Your task to perform on an android device: install app "HBO Max: Stream TV & Movies" Image 0: 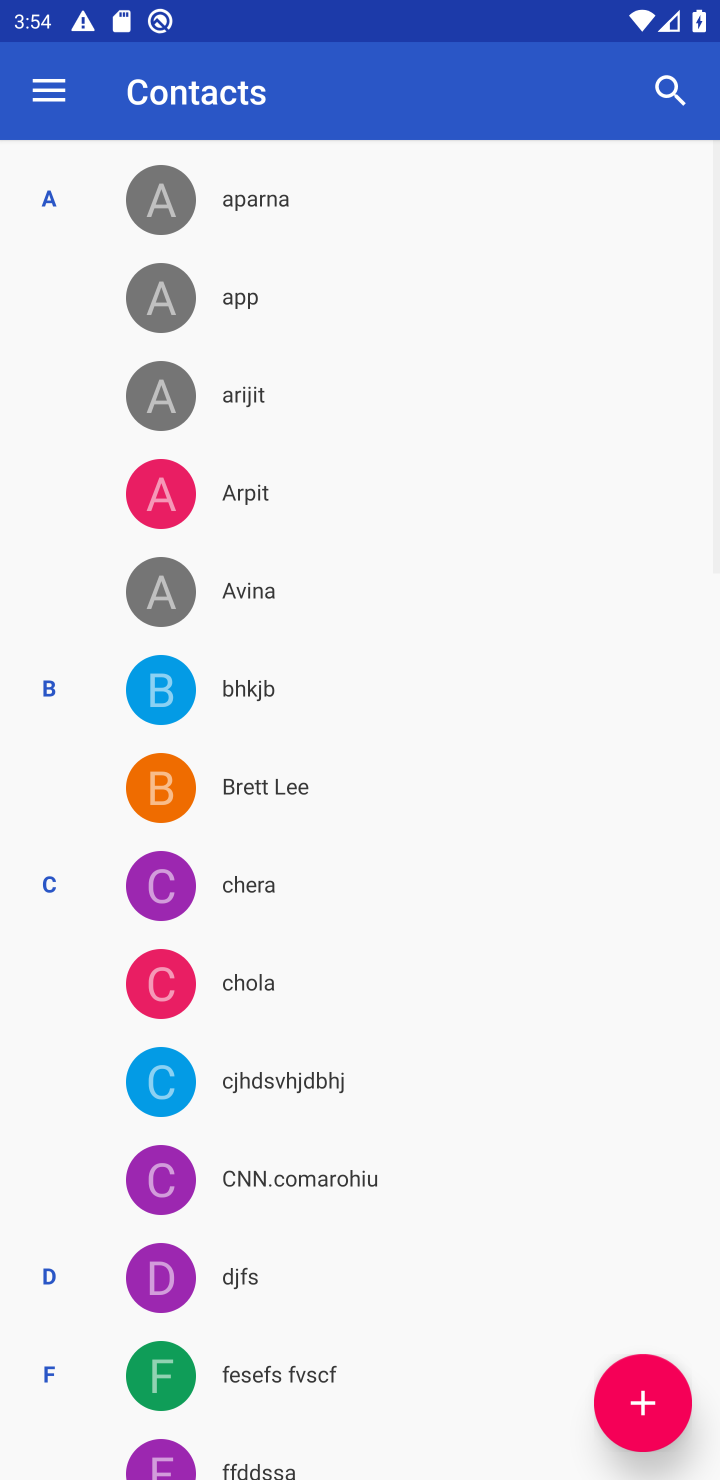
Step 0: press home button
Your task to perform on an android device: install app "HBO Max: Stream TV & Movies" Image 1: 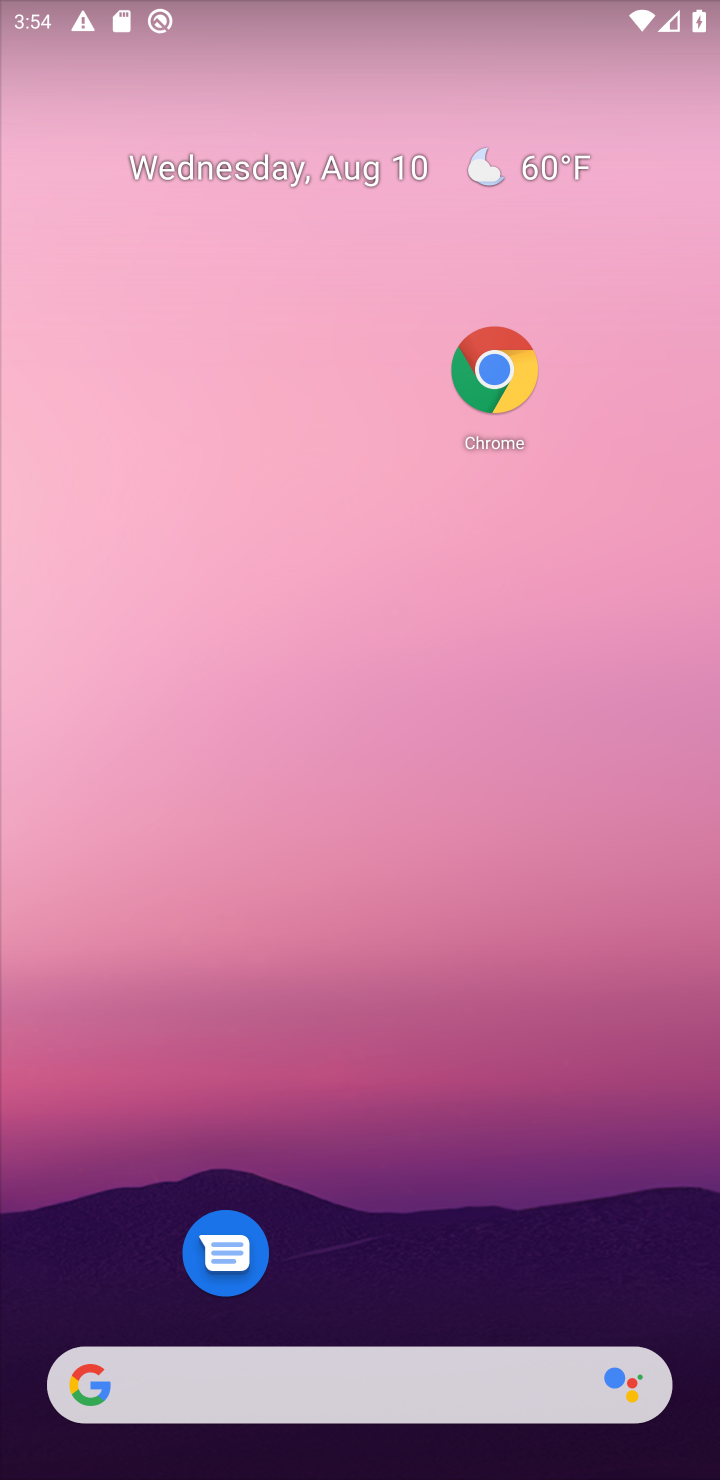
Step 1: press home button
Your task to perform on an android device: install app "HBO Max: Stream TV & Movies" Image 2: 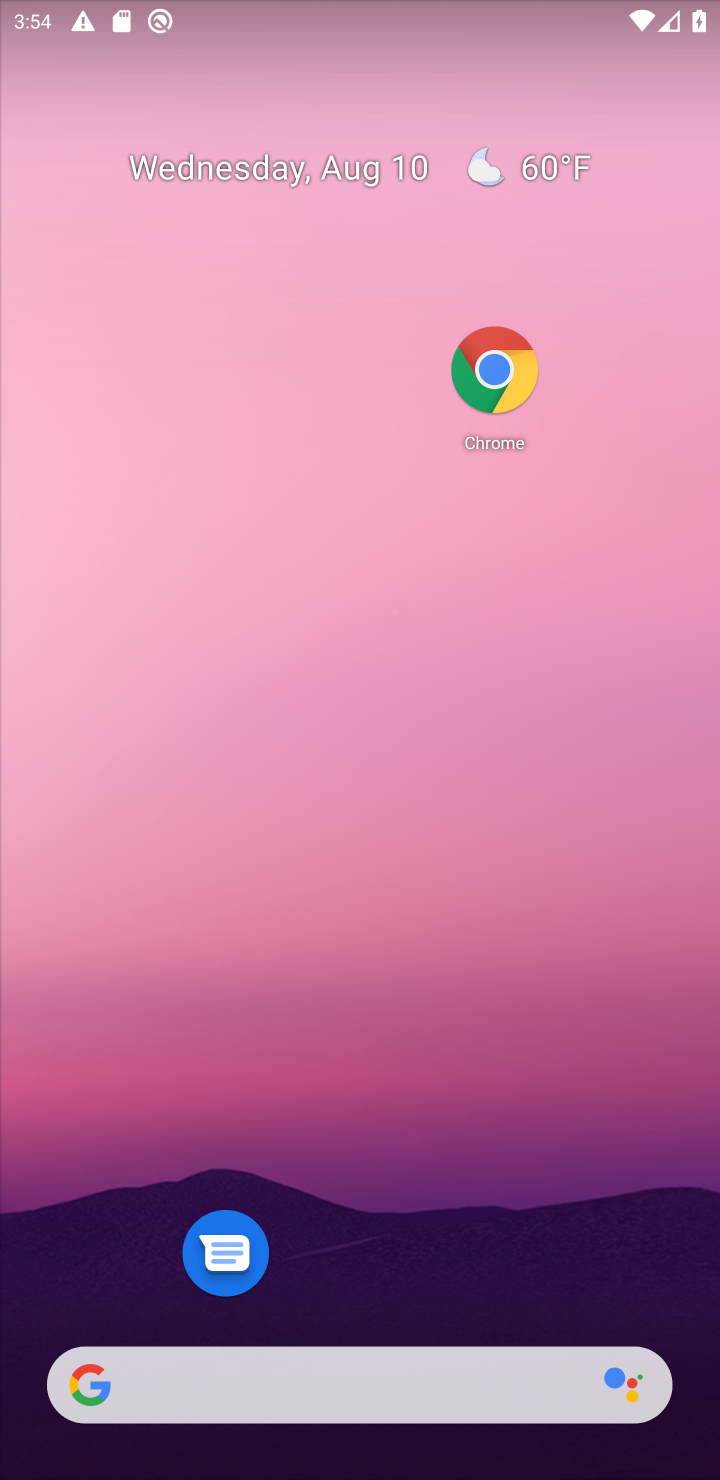
Step 2: drag from (361, 1256) to (352, 79)
Your task to perform on an android device: install app "HBO Max: Stream TV & Movies" Image 3: 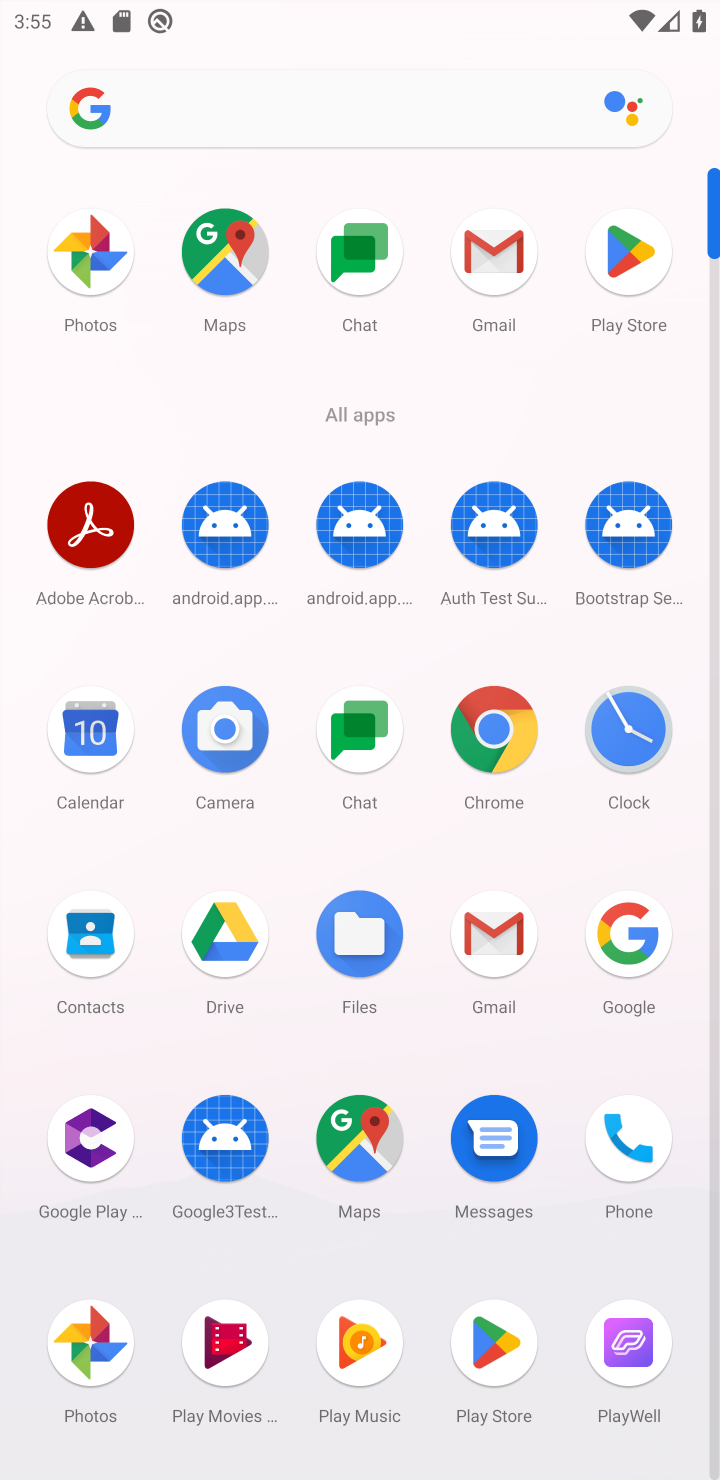
Step 3: click (629, 265)
Your task to perform on an android device: install app "HBO Max: Stream TV & Movies" Image 4: 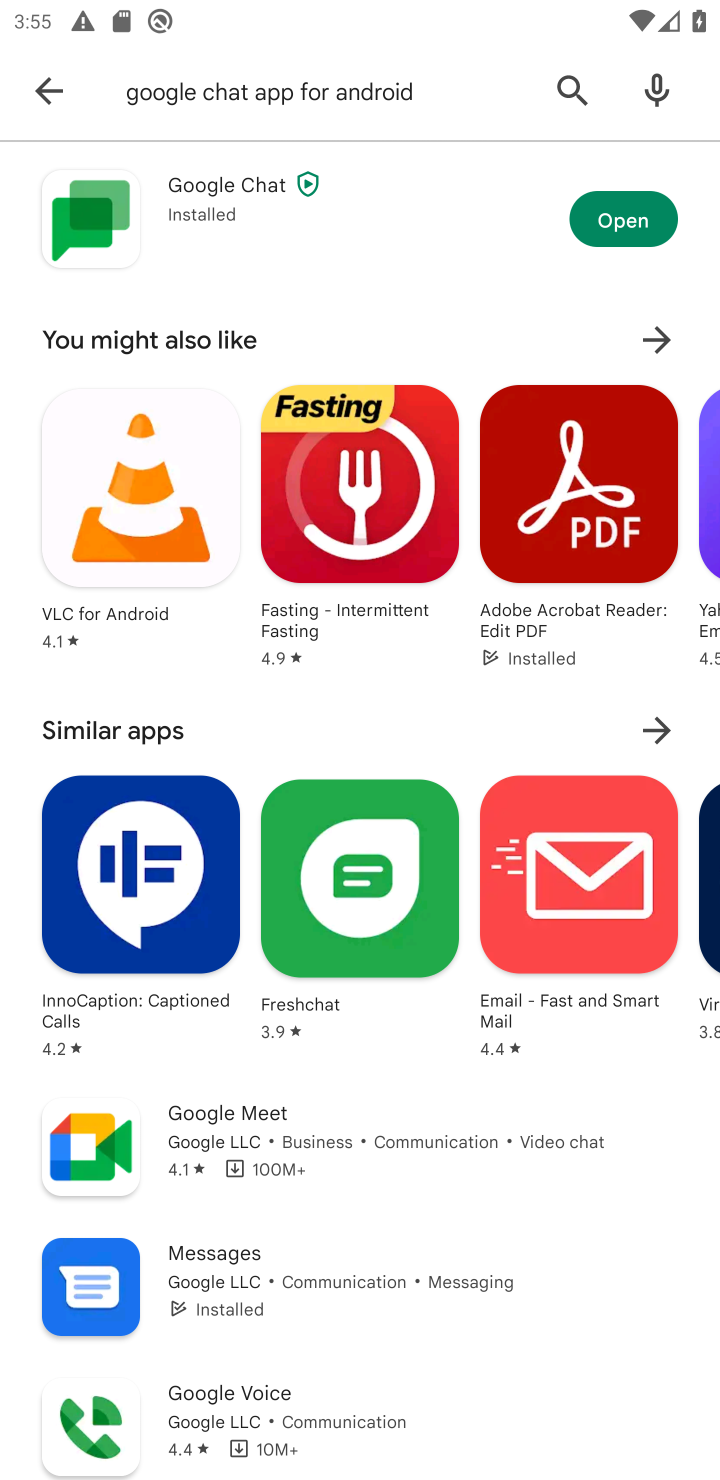
Step 4: click (66, 78)
Your task to perform on an android device: install app "HBO Max: Stream TV & Movies" Image 5: 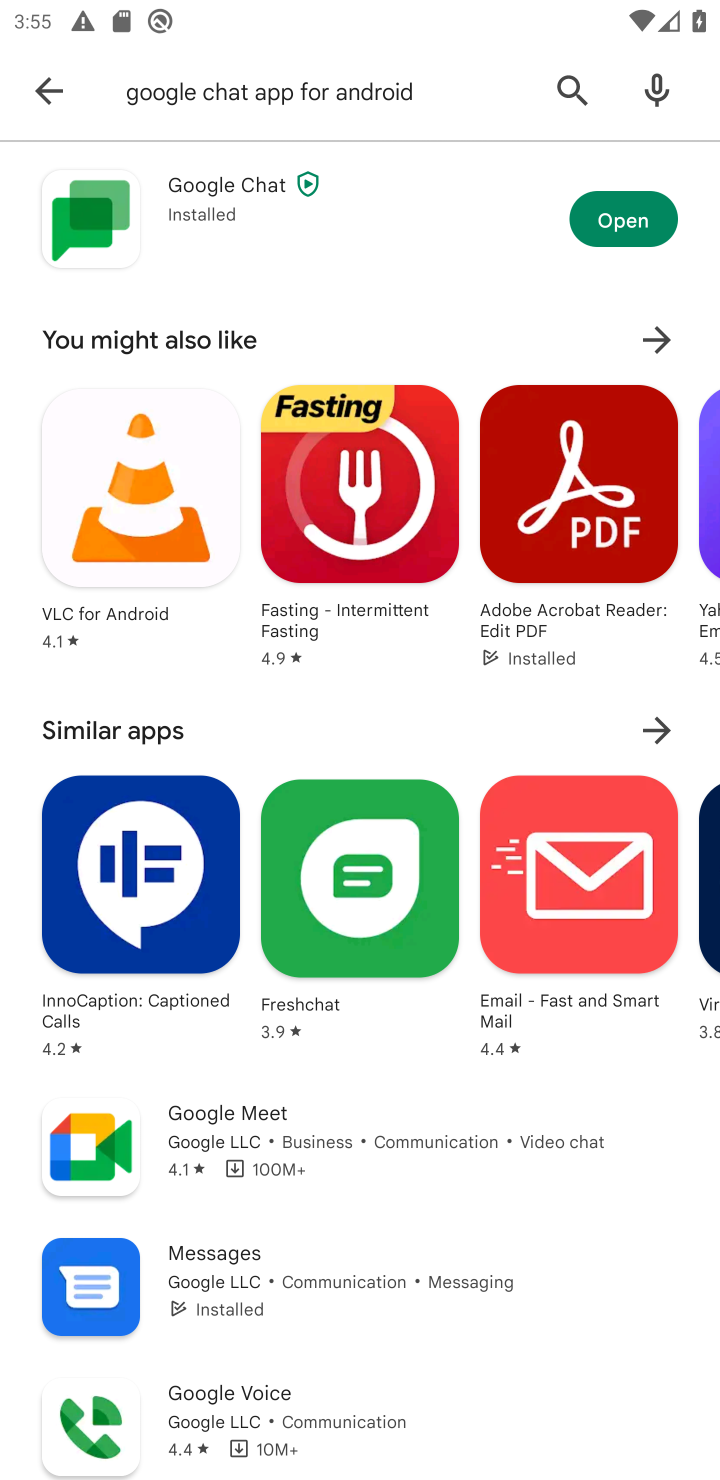
Step 5: click (52, 109)
Your task to perform on an android device: install app "HBO Max: Stream TV & Movies" Image 6: 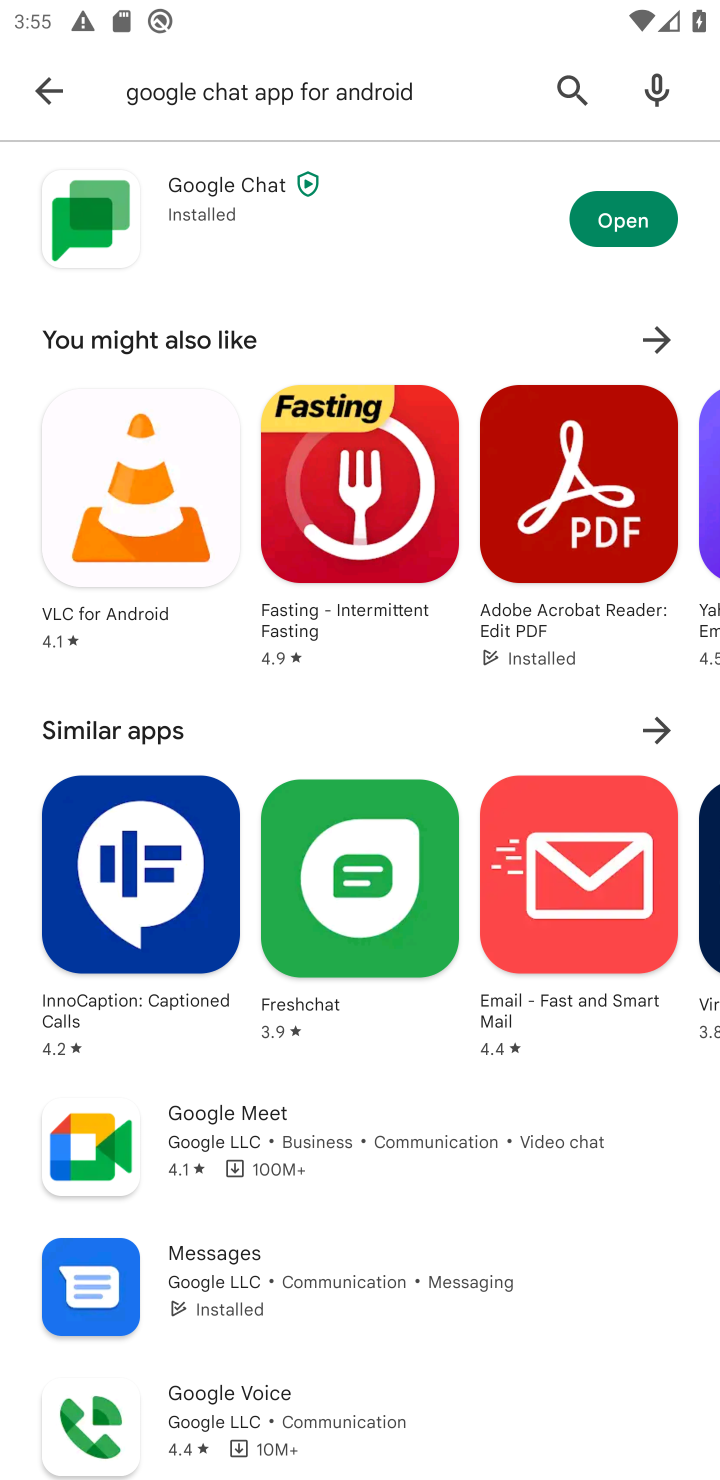
Step 6: click (82, 81)
Your task to perform on an android device: install app "HBO Max: Stream TV & Movies" Image 7: 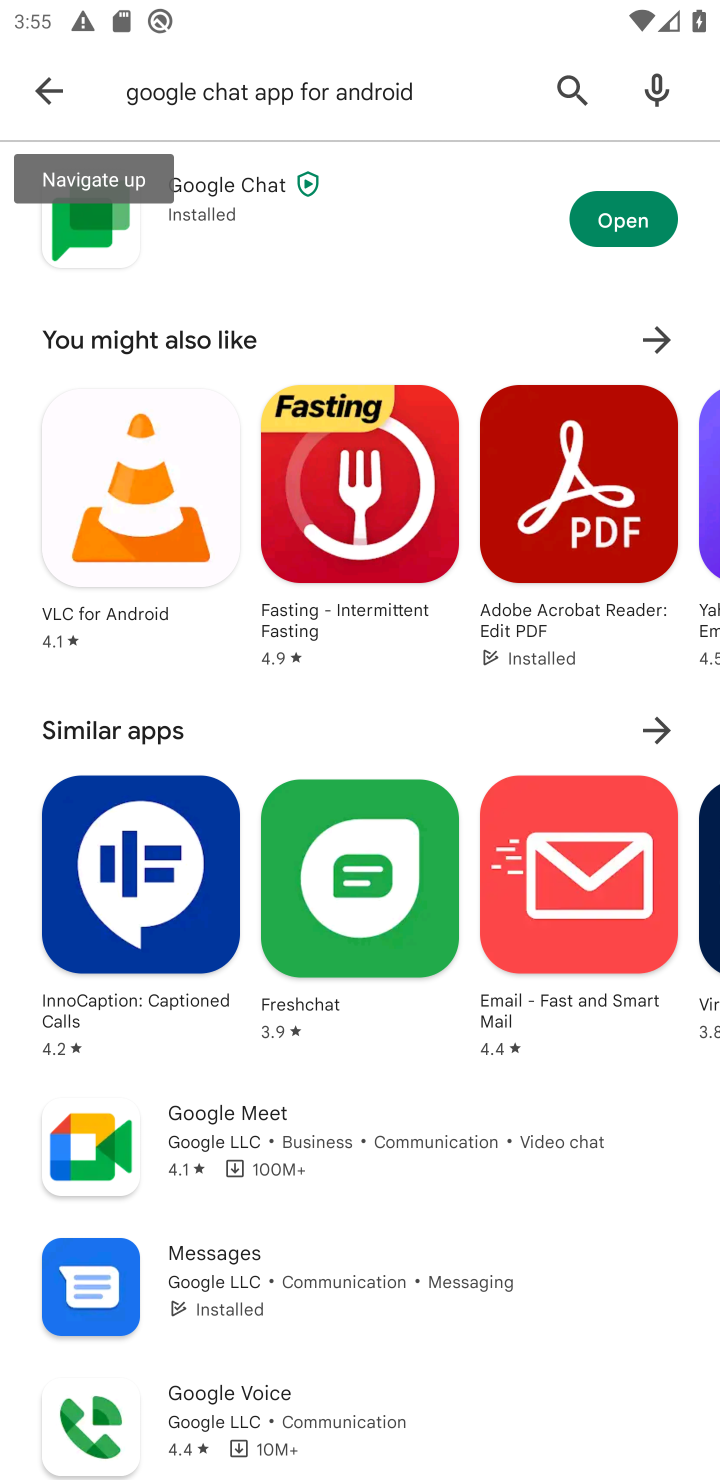
Step 7: click (418, 86)
Your task to perform on an android device: install app "HBO Max: Stream TV & Movies" Image 8: 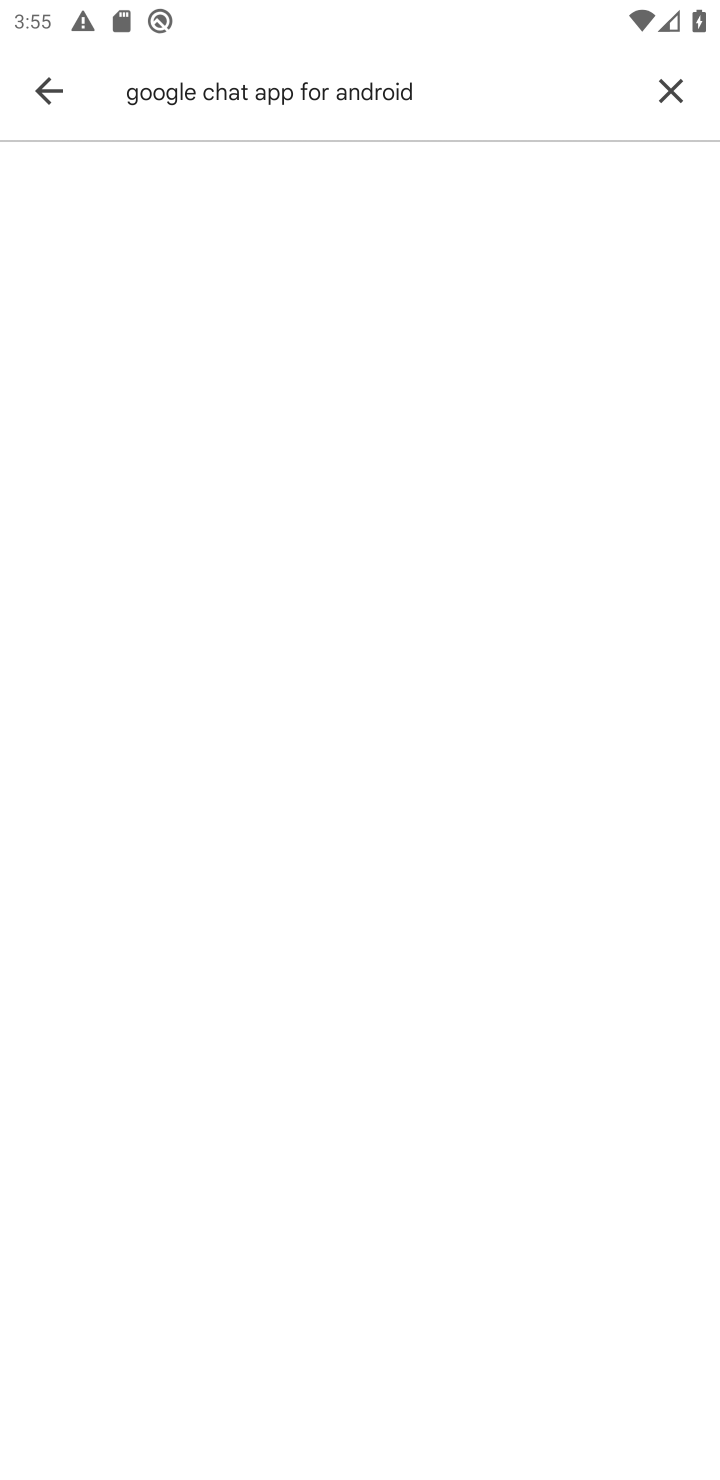
Step 8: click (418, 86)
Your task to perform on an android device: install app "HBO Max: Stream TV & Movies" Image 9: 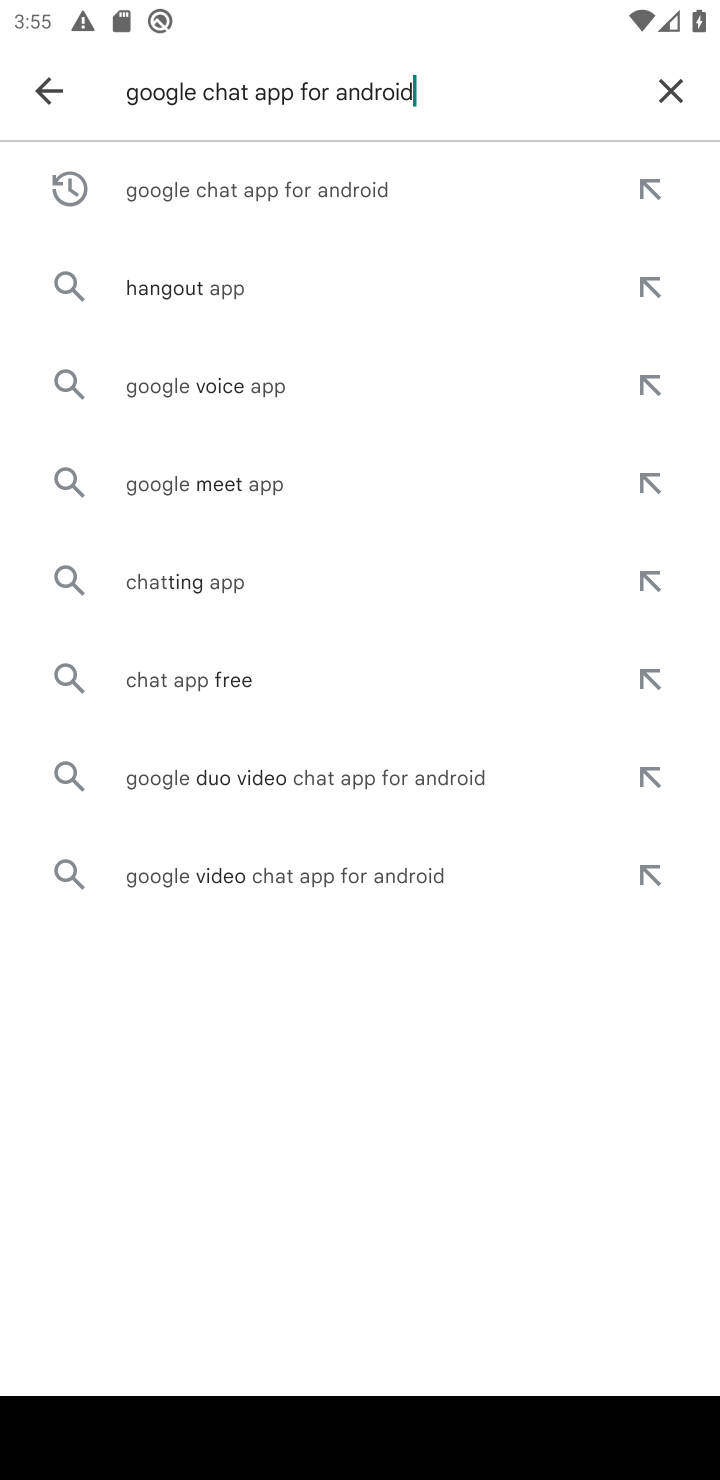
Step 9: click (672, 98)
Your task to perform on an android device: install app "HBO Max: Stream TV & Movies" Image 10: 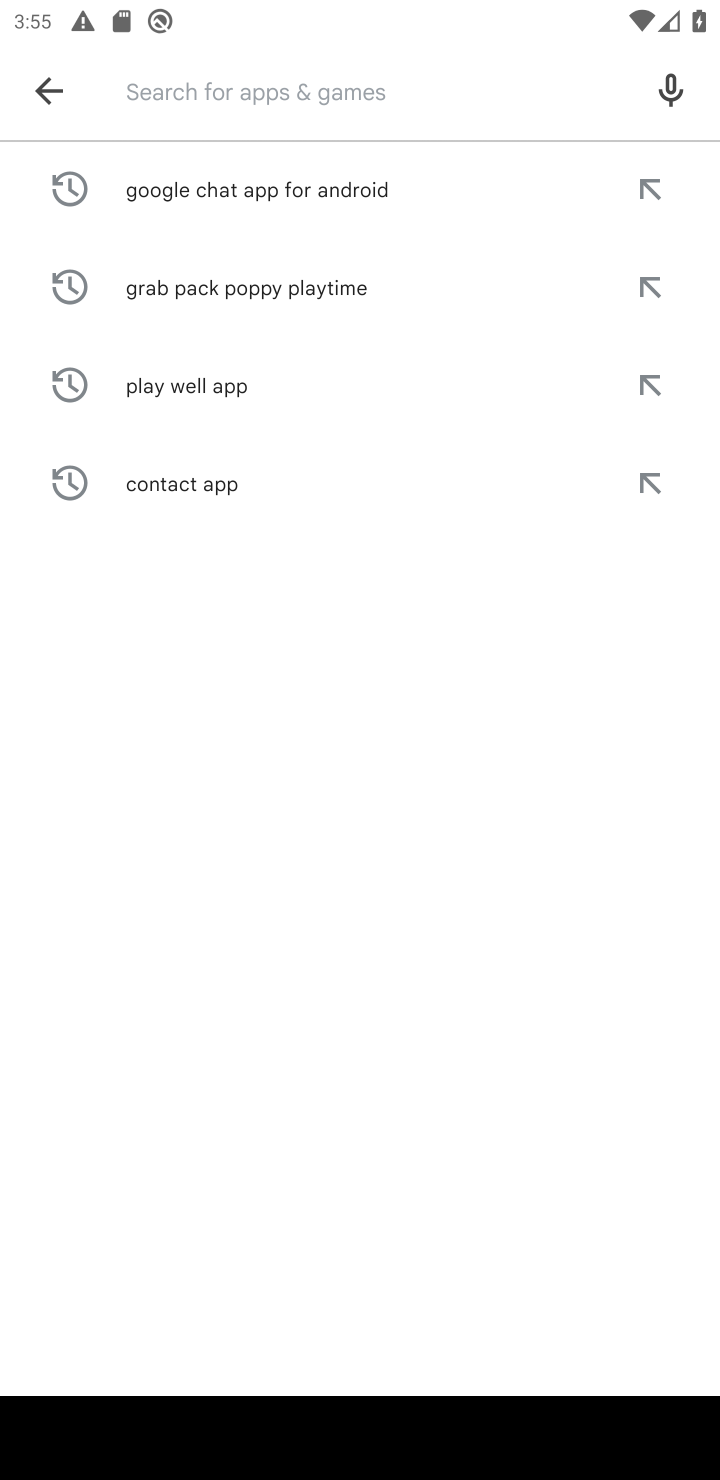
Step 10: click (259, 92)
Your task to perform on an android device: install app "HBO Max: Stream TV & Movies" Image 11: 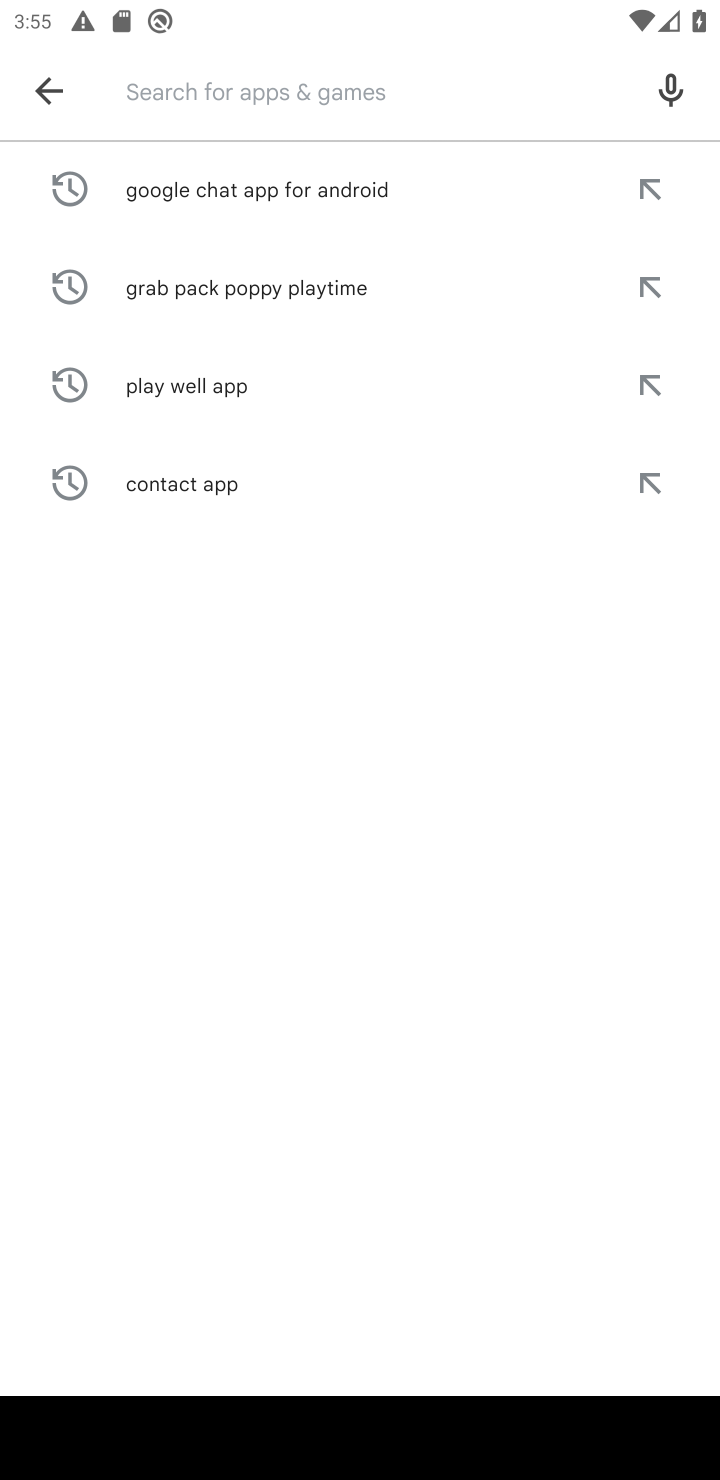
Step 11: type "HBO Max: Stream TV & Movies "
Your task to perform on an android device: install app "HBO Max: Stream TV & Movies" Image 12: 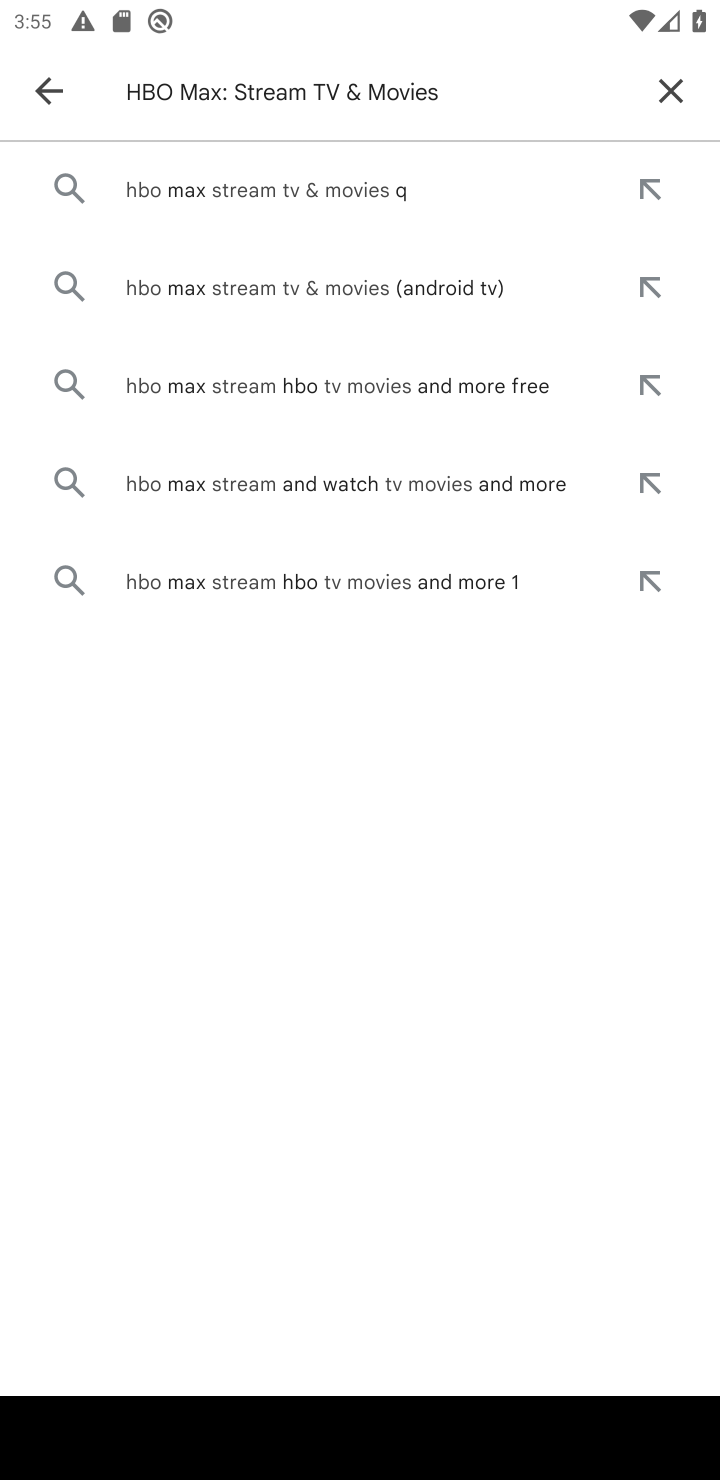
Step 12: click (267, 176)
Your task to perform on an android device: install app "HBO Max: Stream TV & Movies" Image 13: 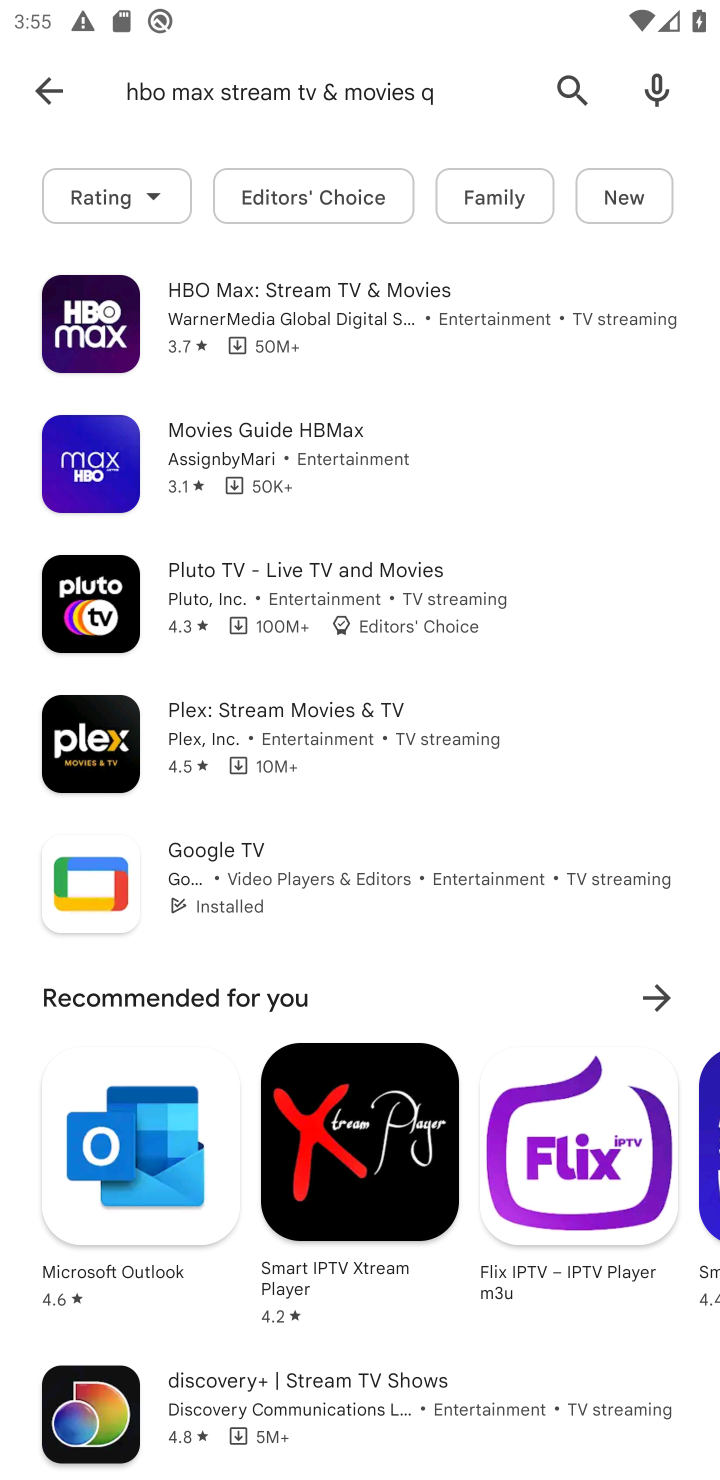
Step 13: click (186, 333)
Your task to perform on an android device: install app "HBO Max: Stream TV & Movies" Image 14: 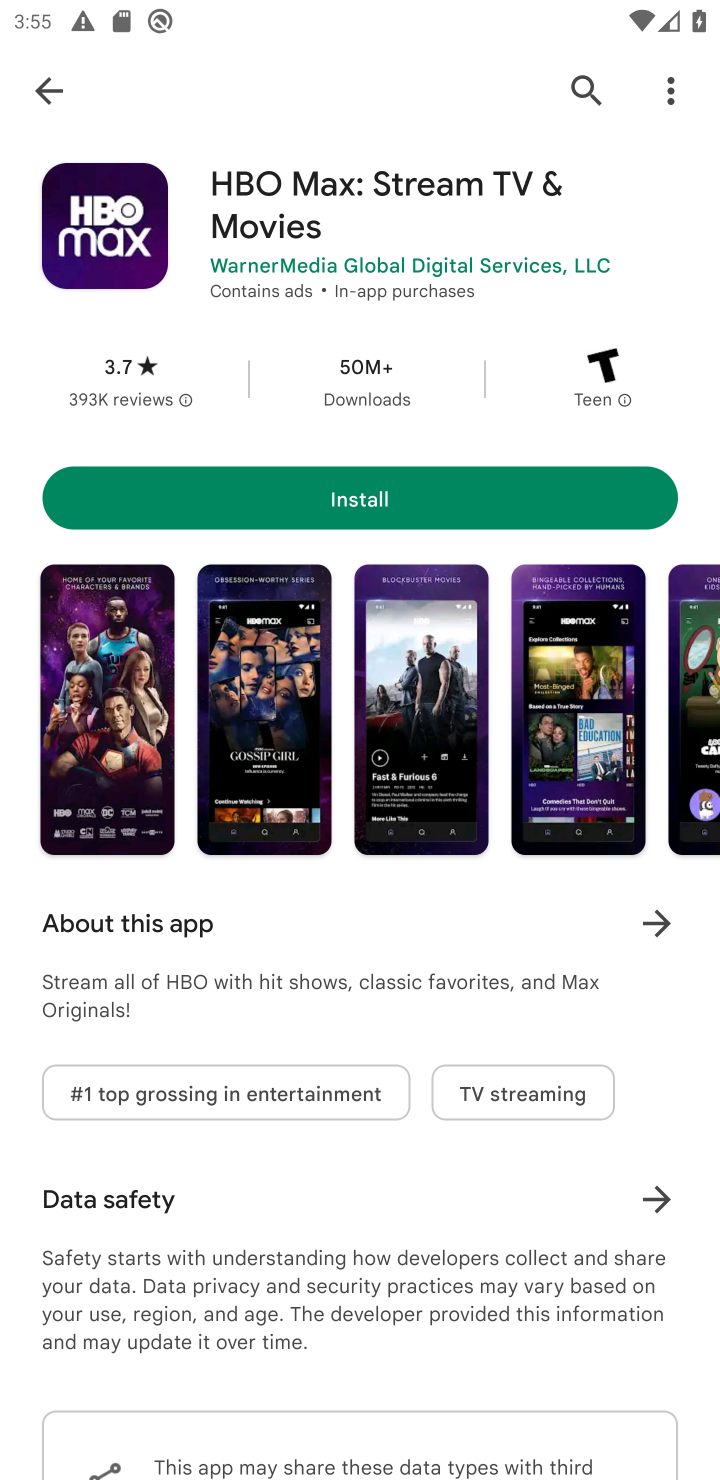
Step 14: click (352, 485)
Your task to perform on an android device: install app "HBO Max: Stream TV & Movies" Image 15: 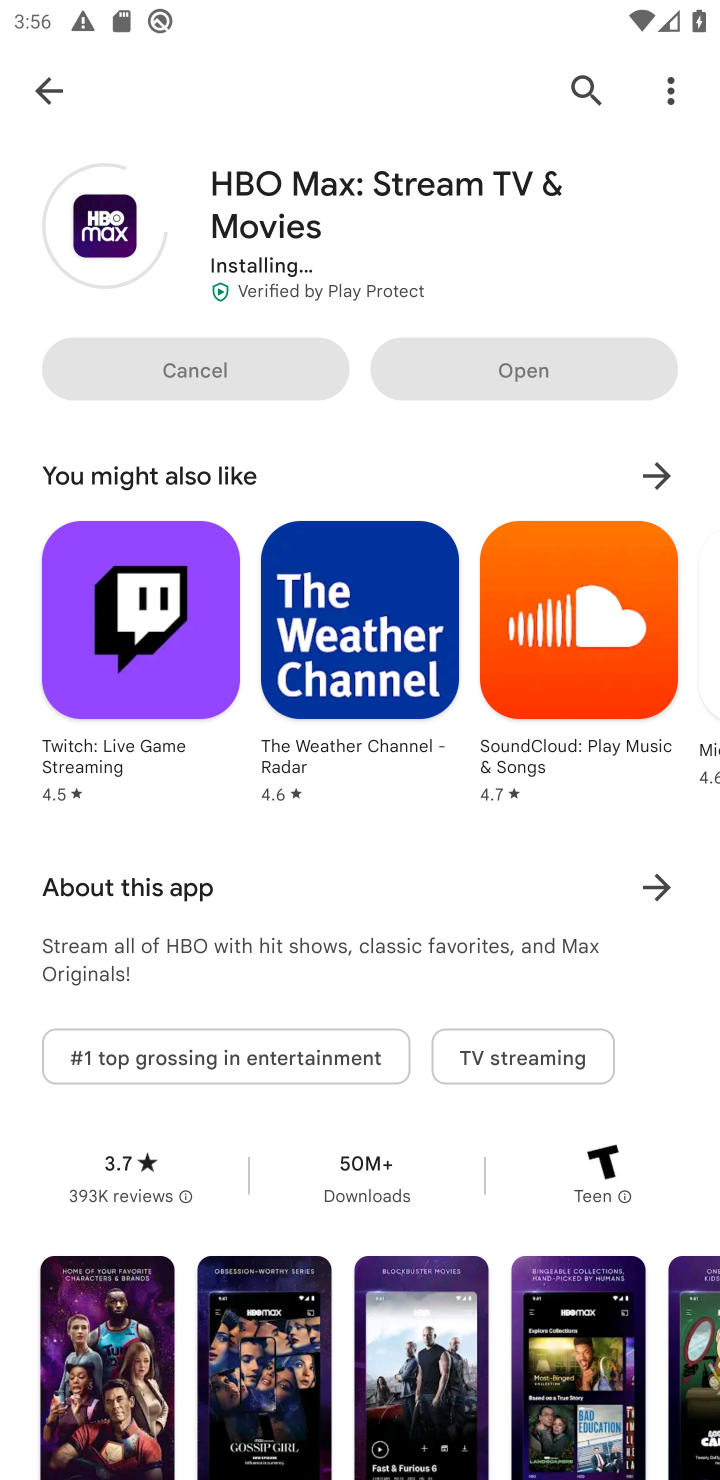
Step 15: task complete